Your task to perform on an android device: Check out the new ikea catalog. Image 0: 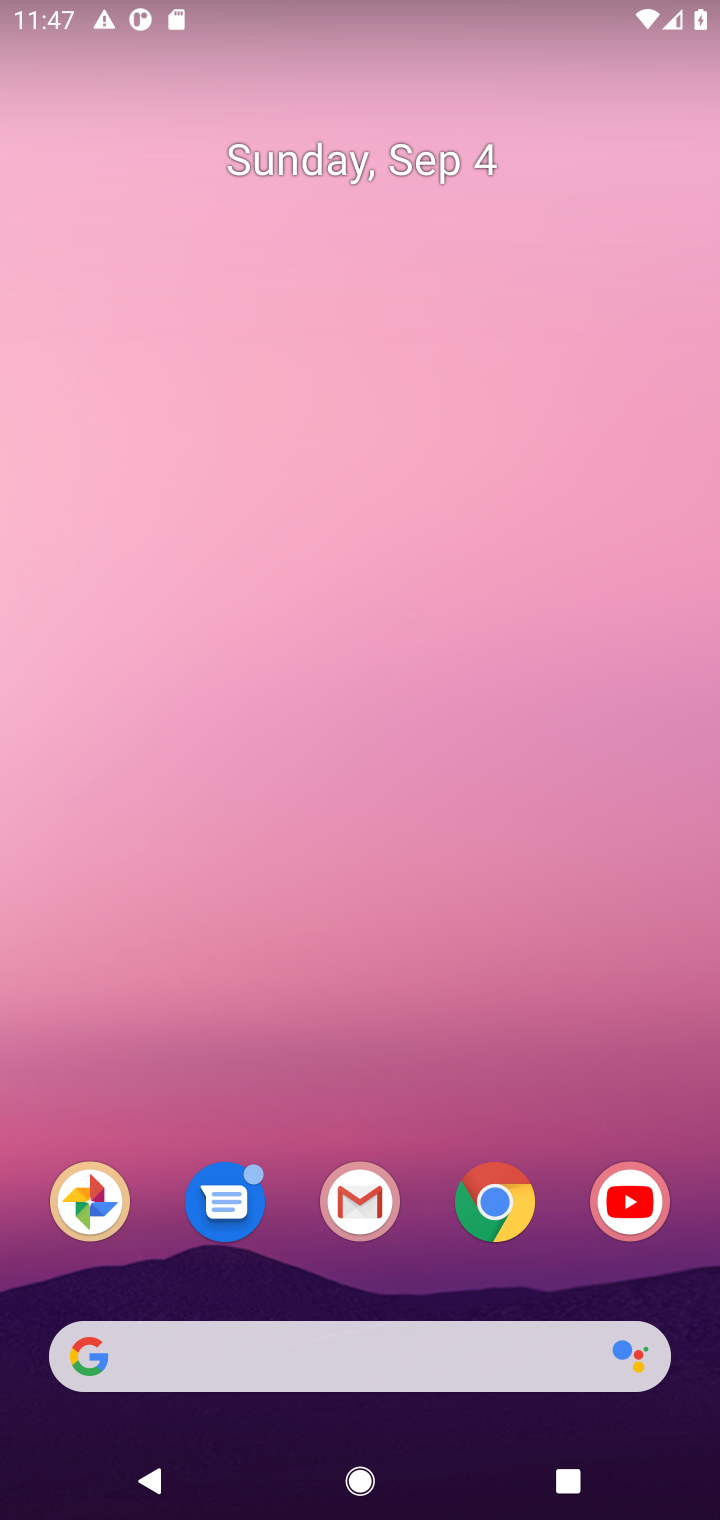
Step 0: drag from (386, 259) to (397, 166)
Your task to perform on an android device: Check out the new ikea catalog. Image 1: 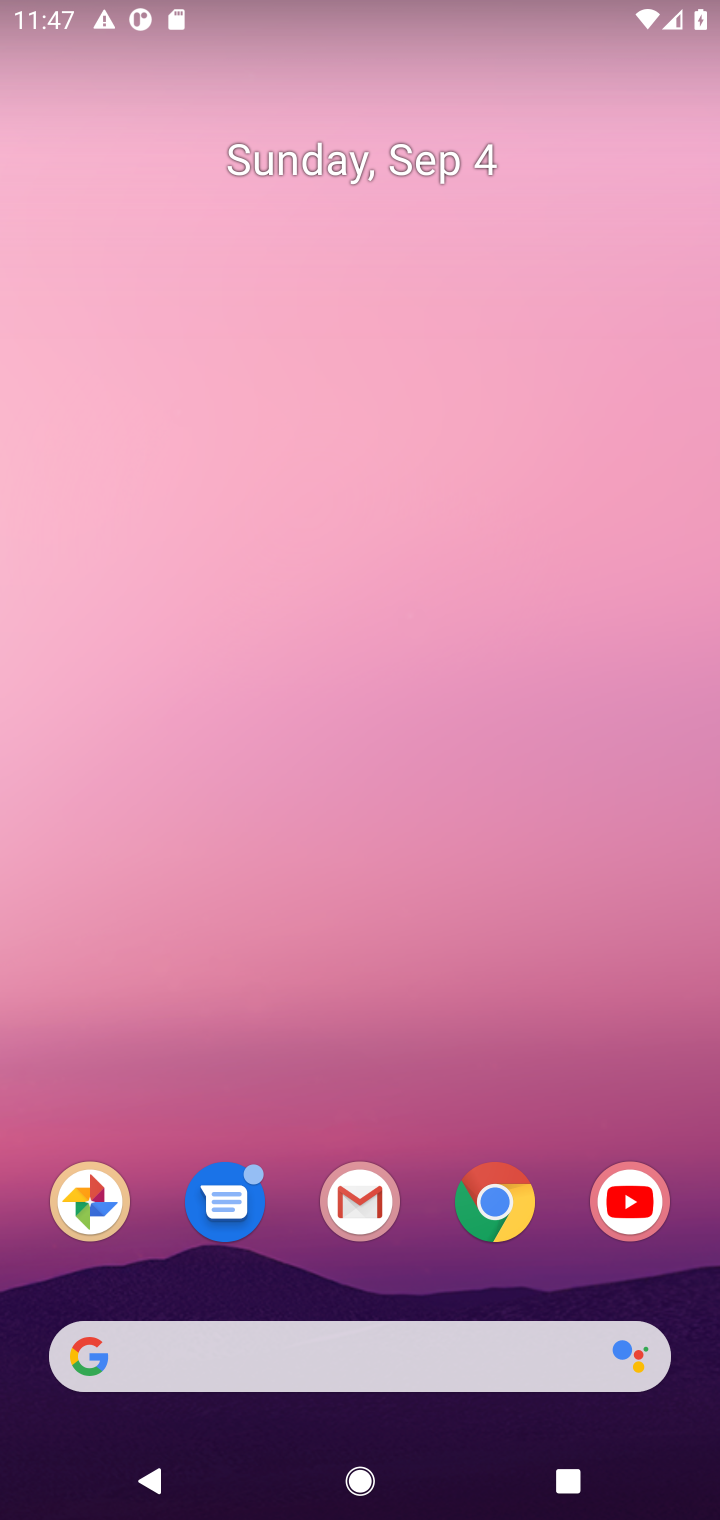
Step 1: drag from (413, 1238) to (441, 41)
Your task to perform on an android device: Check out the new ikea catalog. Image 2: 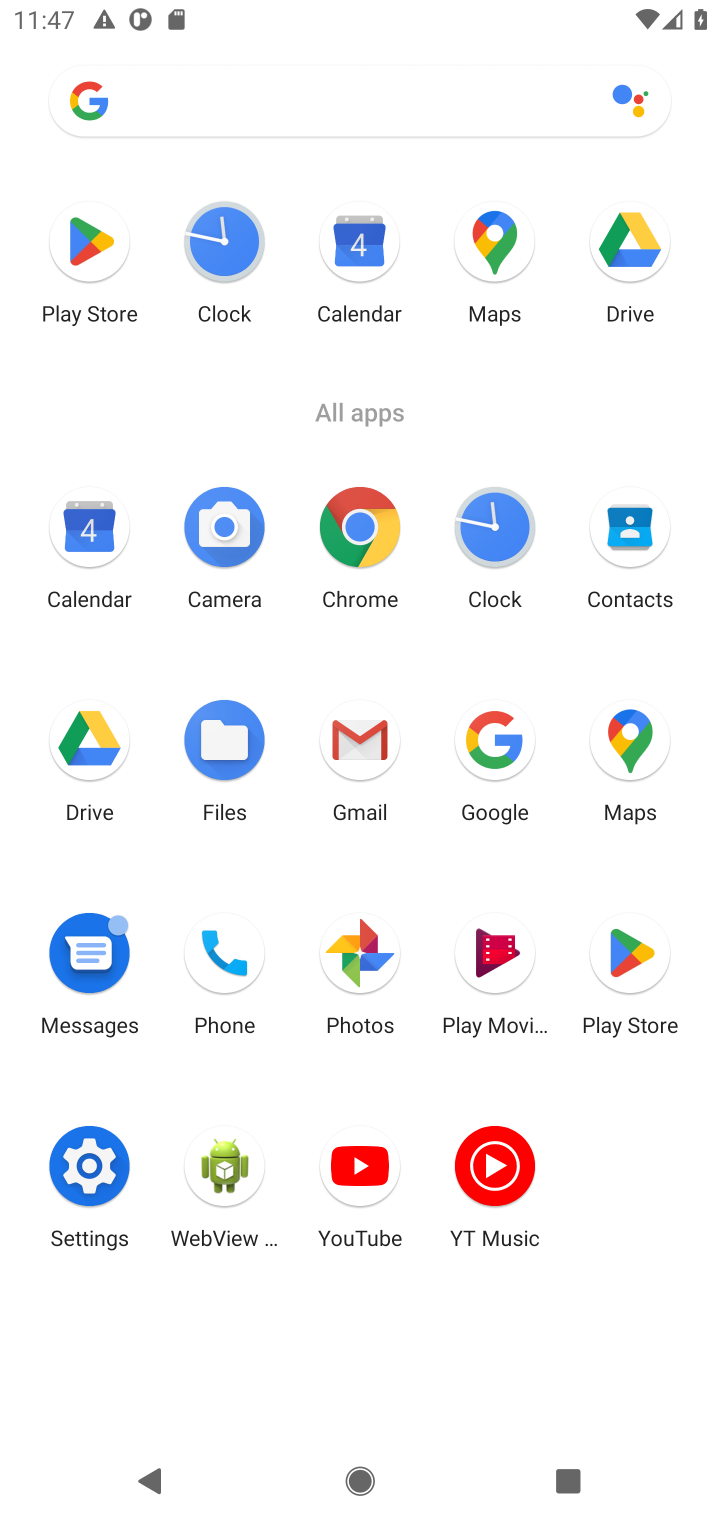
Step 2: click (351, 525)
Your task to perform on an android device: Check out the new ikea catalog. Image 3: 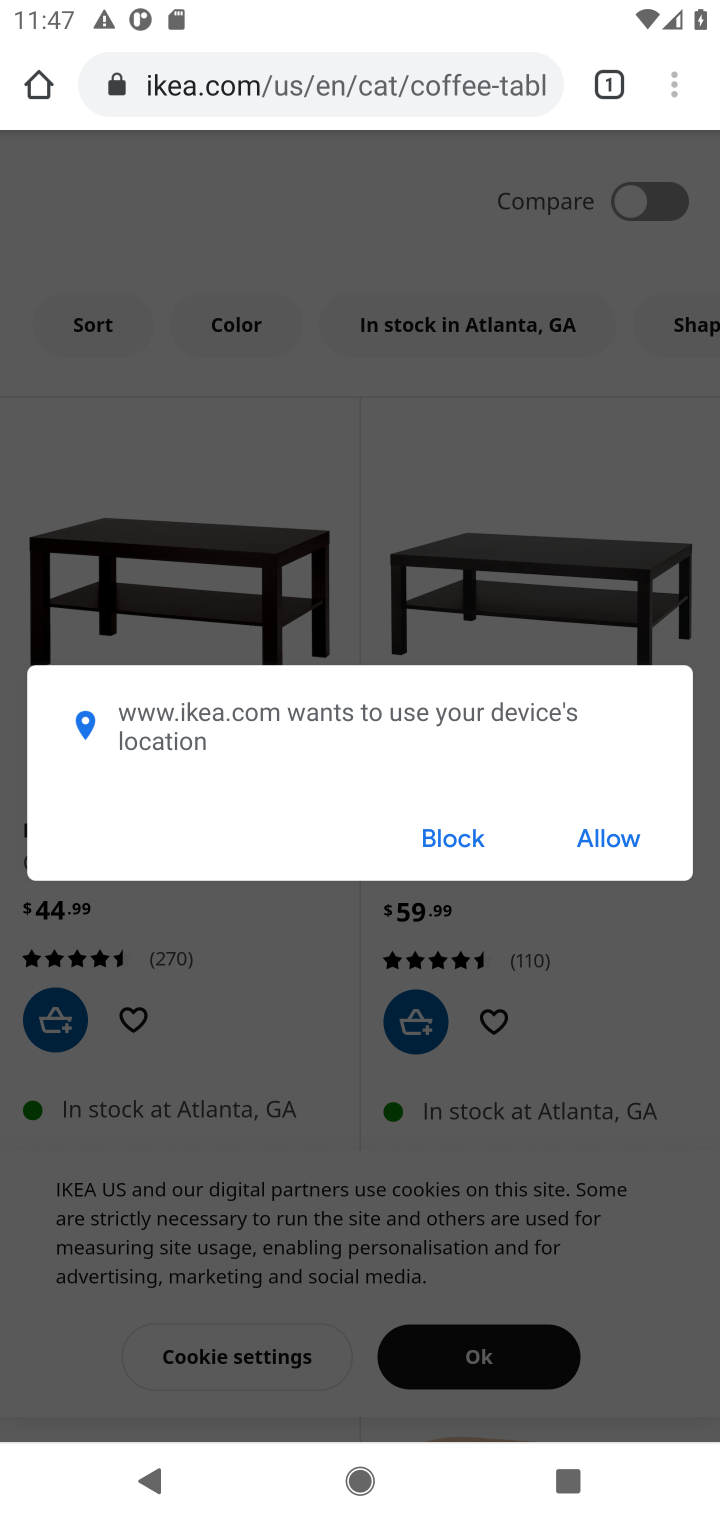
Step 3: click (255, 76)
Your task to perform on an android device: Check out the new ikea catalog. Image 4: 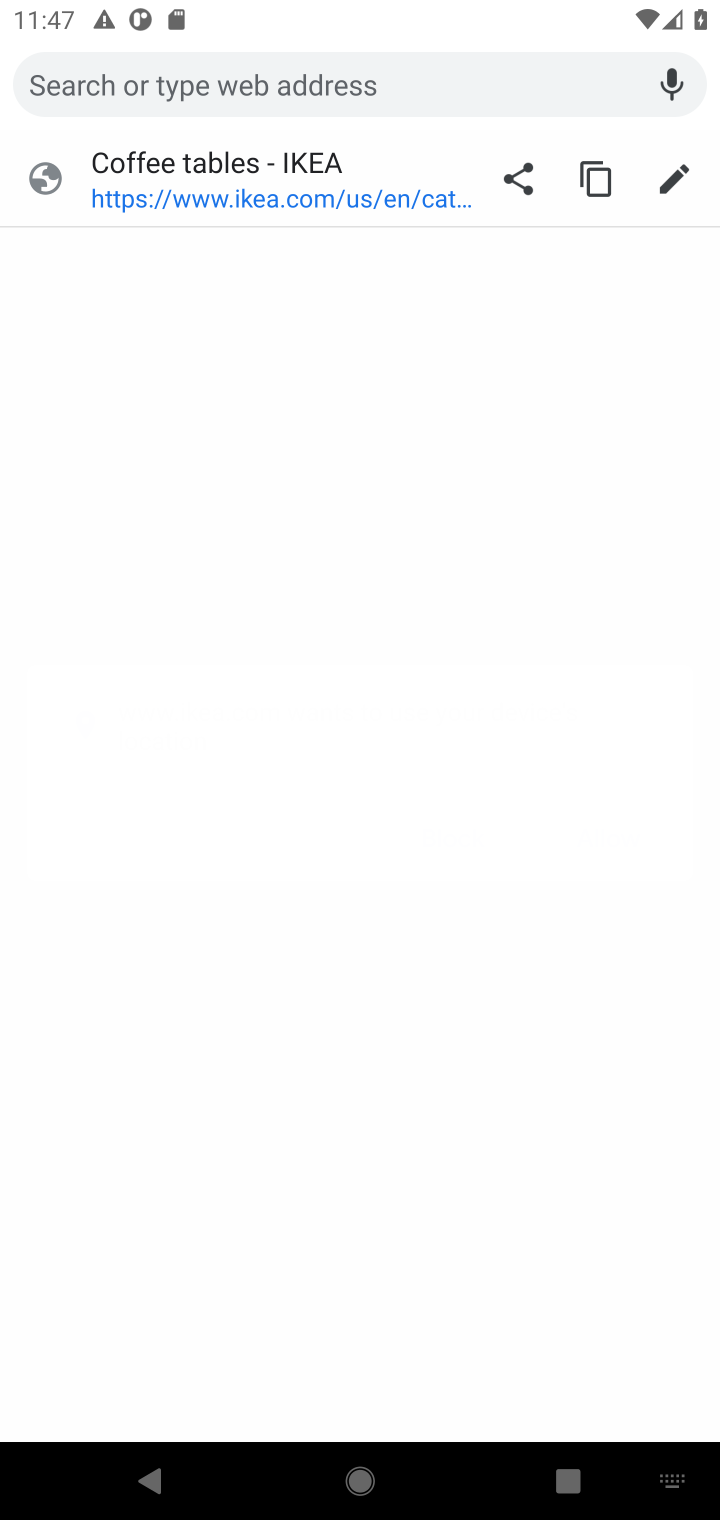
Step 4: type "new ikea catalog"
Your task to perform on an android device: Check out the new ikea catalog. Image 5: 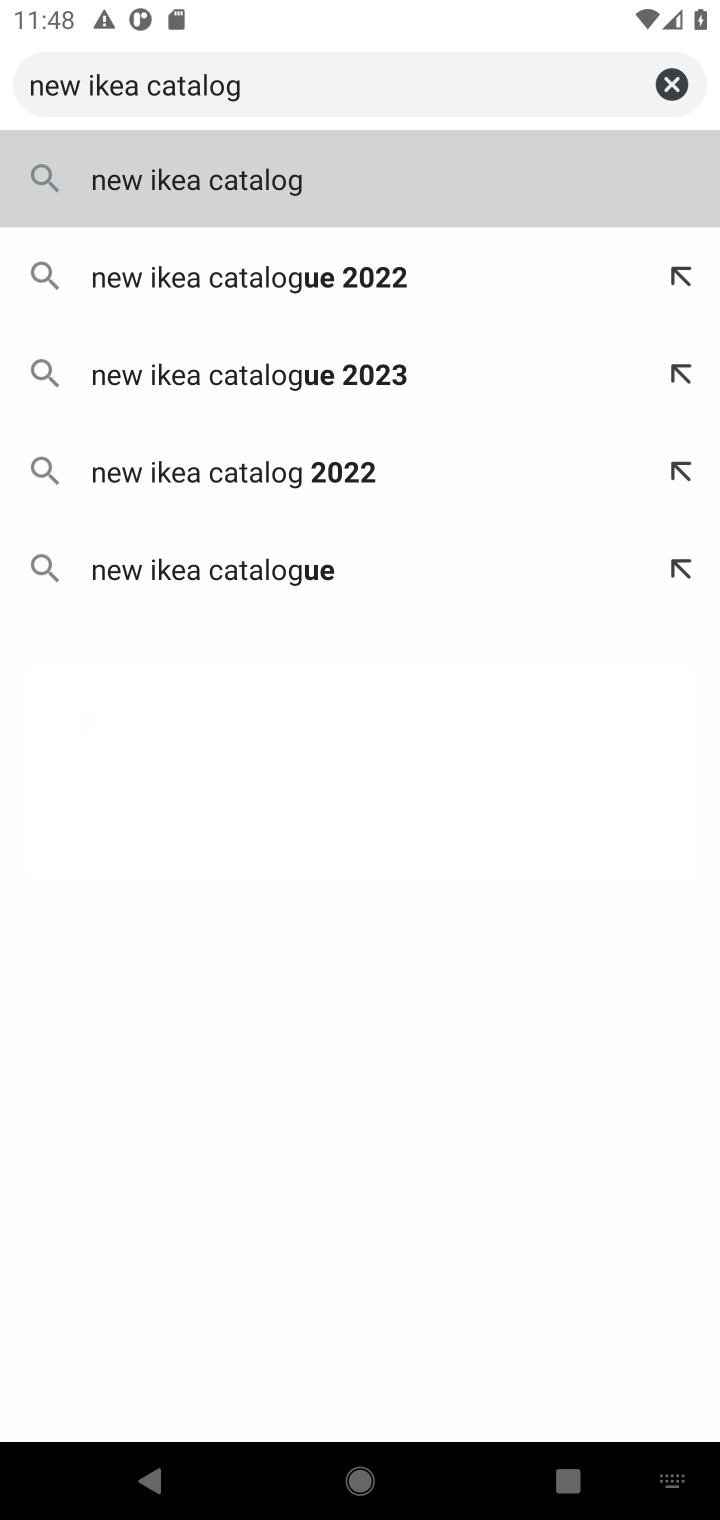
Step 5: press enter
Your task to perform on an android device: Check out the new ikea catalog. Image 6: 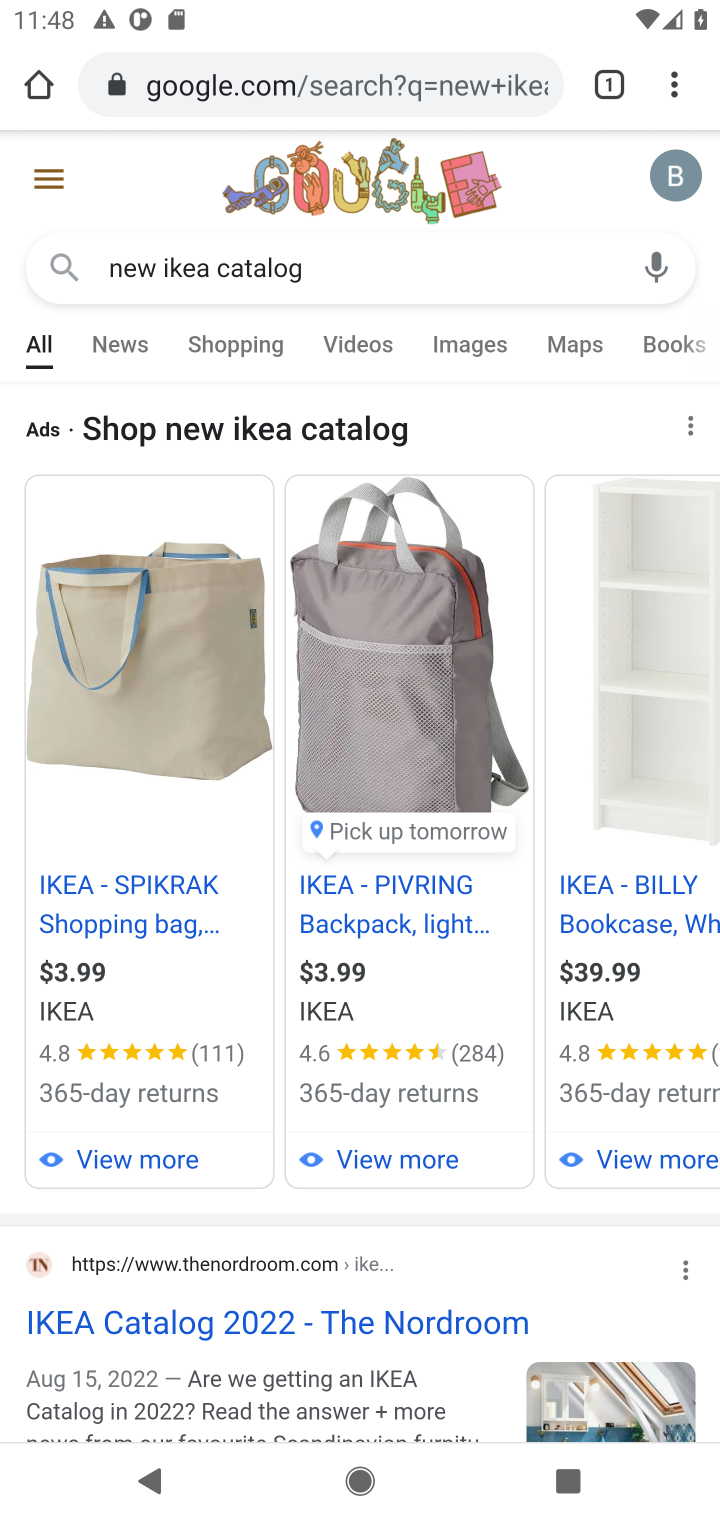
Step 6: click (284, 1306)
Your task to perform on an android device: Check out the new ikea catalog. Image 7: 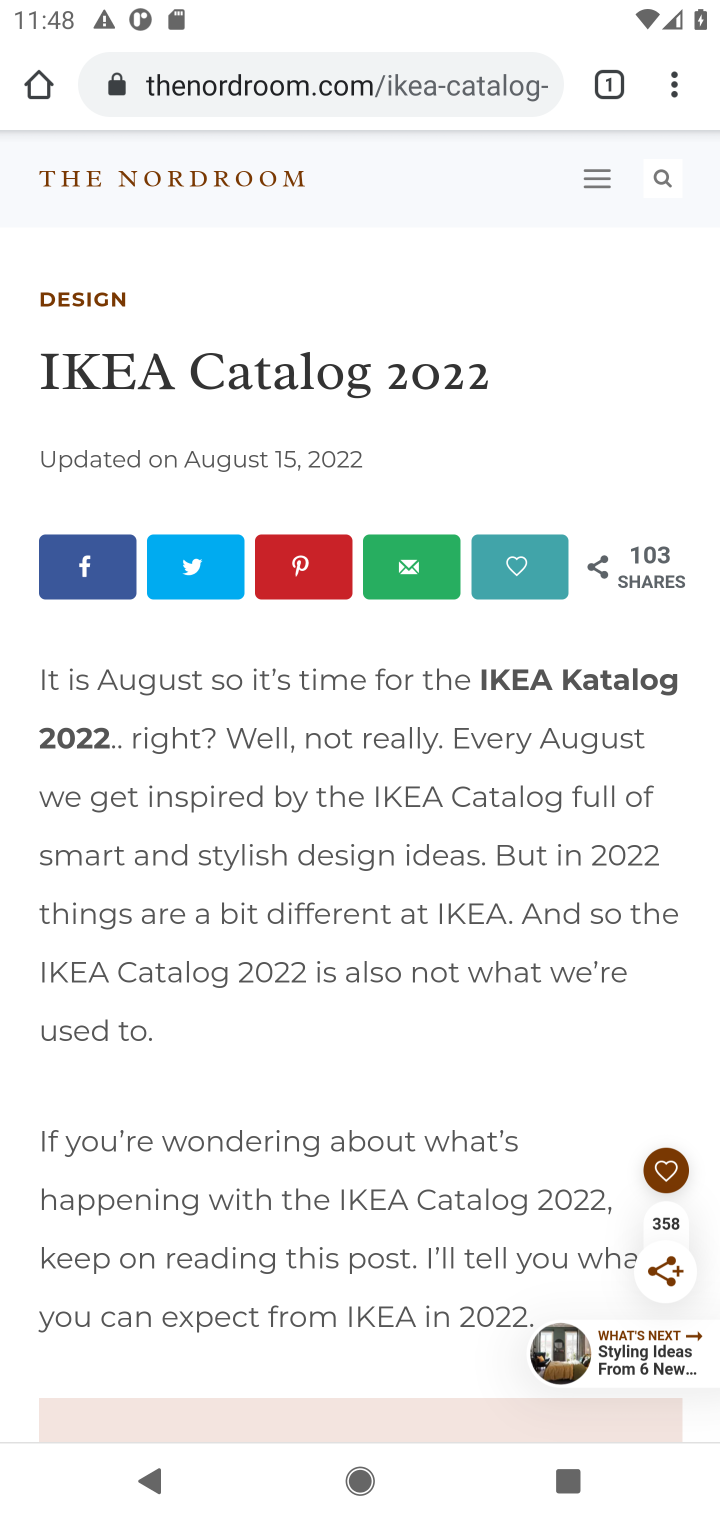
Step 7: task complete